Your task to perform on an android device: change the clock style Image 0: 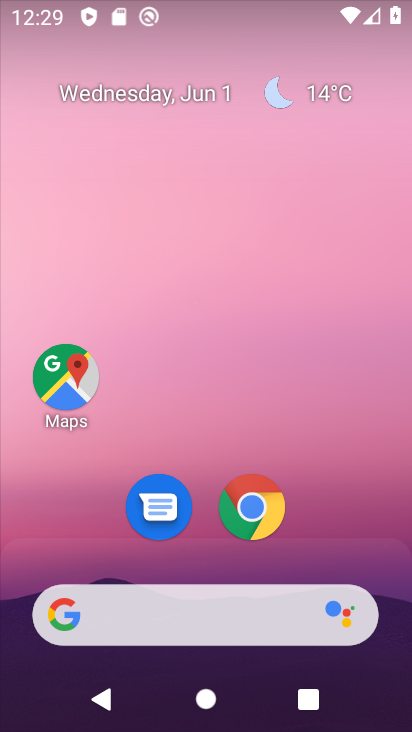
Step 0: drag from (56, 599) to (195, 124)
Your task to perform on an android device: change the clock style Image 1: 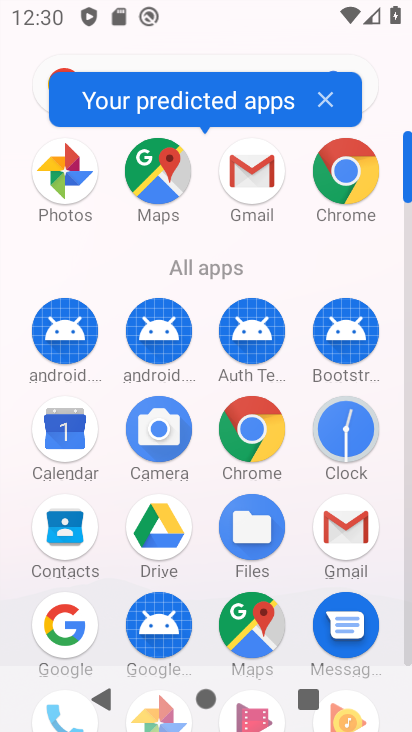
Step 1: click (367, 447)
Your task to perform on an android device: change the clock style Image 2: 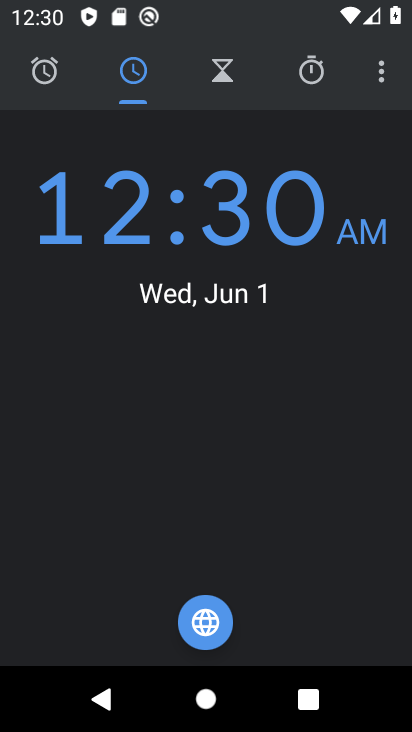
Step 2: click (384, 78)
Your task to perform on an android device: change the clock style Image 3: 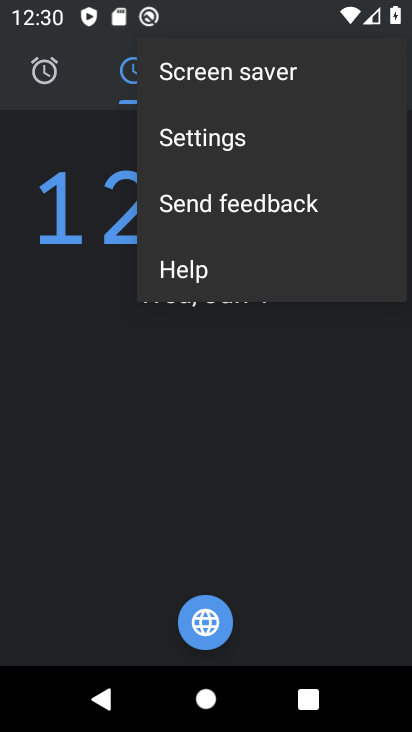
Step 3: click (321, 148)
Your task to perform on an android device: change the clock style Image 4: 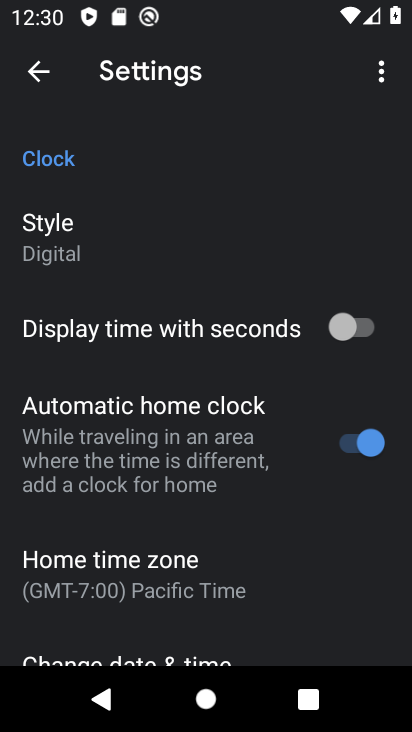
Step 4: click (103, 234)
Your task to perform on an android device: change the clock style Image 5: 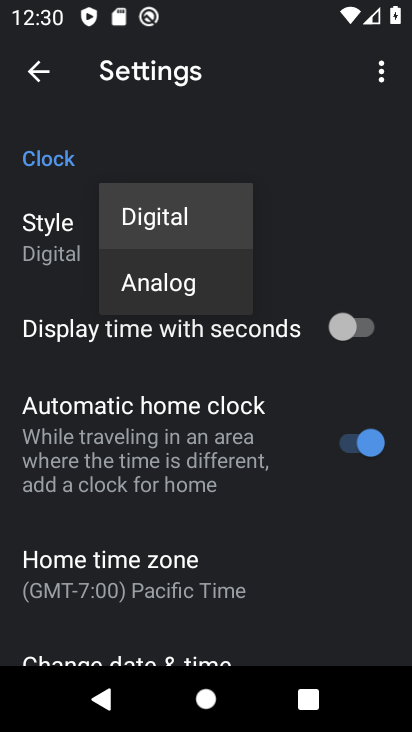
Step 5: click (178, 293)
Your task to perform on an android device: change the clock style Image 6: 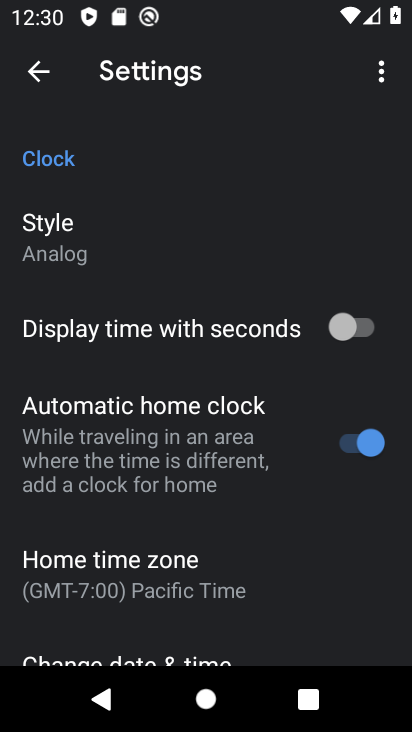
Step 6: task complete